Your task to perform on an android device: Is it going to rain today? Image 0: 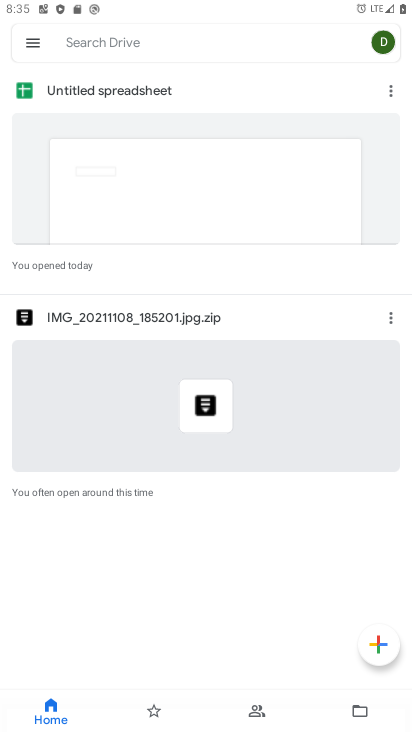
Step 0: press home button
Your task to perform on an android device: Is it going to rain today? Image 1: 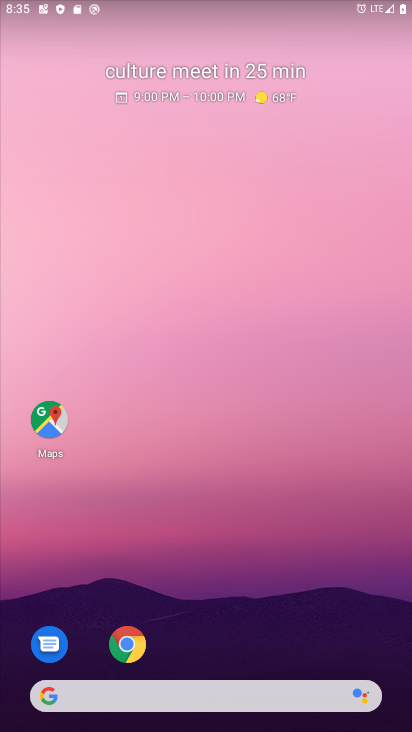
Step 1: drag from (233, 717) to (302, 110)
Your task to perform on an android device: Is it going to rain today? Image 2: 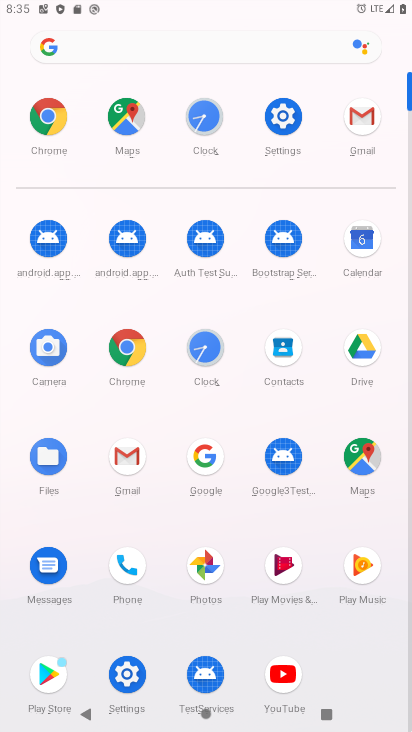
Step 2: click (107, 38)
Your task to perform on an android device: Is it going to rain today? Image 3: 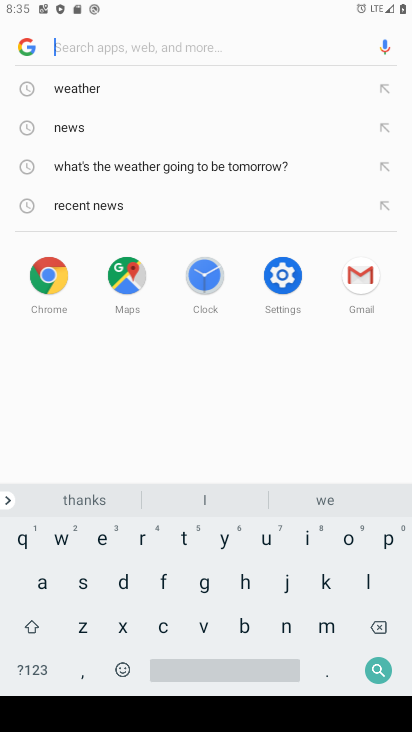
Step 3: click (141, 539)
Your task to perform on an android device: Is it going to rain today? Image 4: 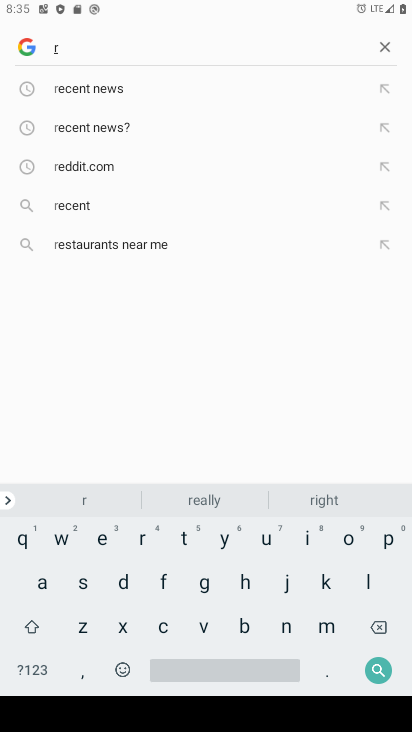
Step 4: click (40, 578)
Your task to perform on an android device: Is it going to rain today? Image 5: 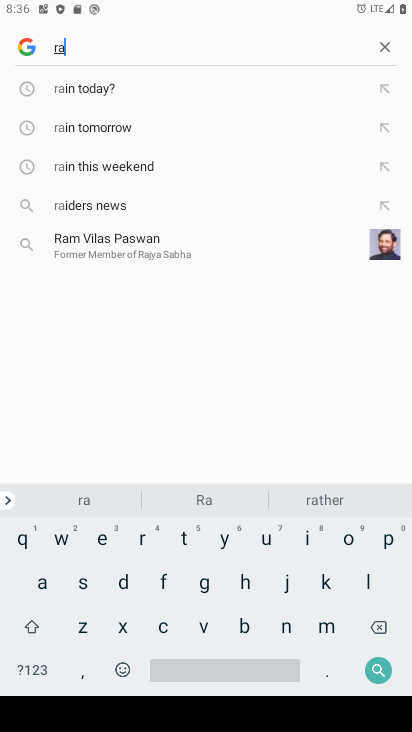
Step 5: click (300, 534)
Your task to perform on an android device: Is it going to rain today? Image 6: 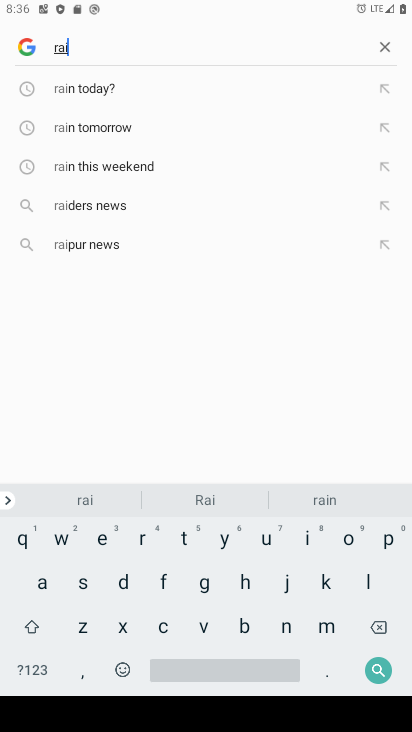
Step 6: click (284, 624)
Your task to perform on an android device: Is it going to rain today? Image 7: 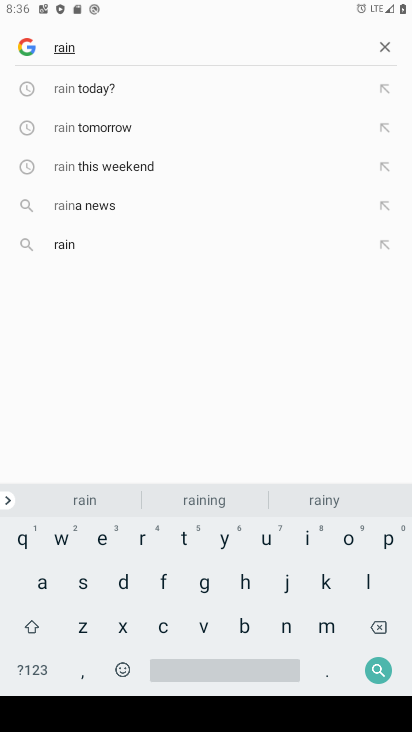
Step 7: click (240, 669)
Your task to perform on an android device: Is it going to rain today? Image 8: 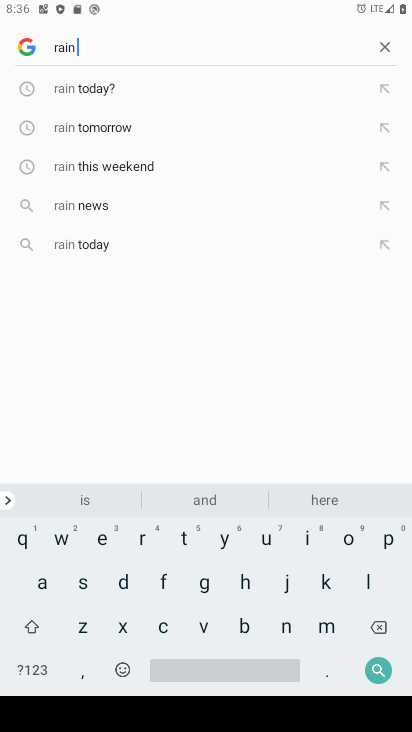
Step 8: click (84, 85)
Your task to perform on an android device: Is it going to rain today? Image 9: 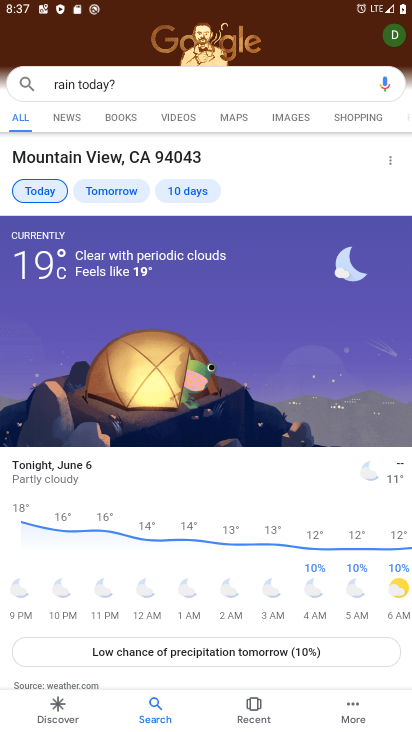
Step 9: task complete